Your task to perform on an android device: Search for Italian restaurants on Maps Image 0: 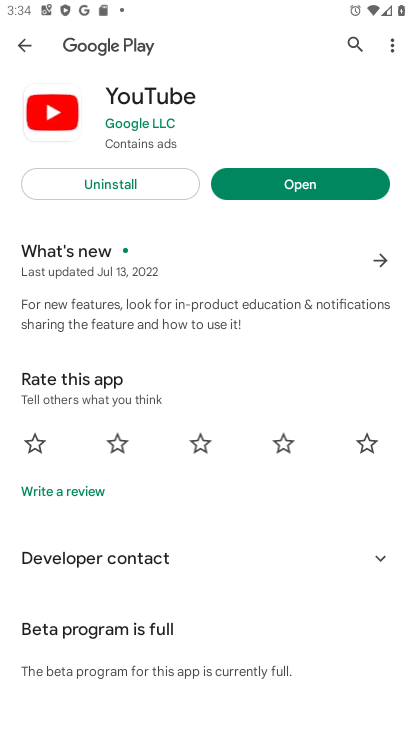
Step 0: press home button
Your task to perform on an android device: Search for Italian restaurants on Maps Image 1: 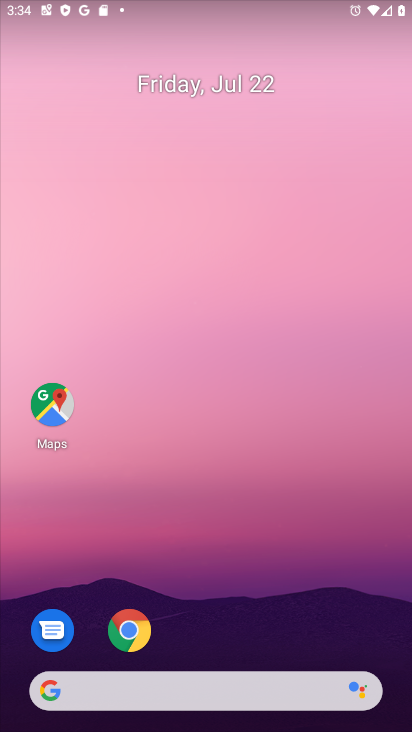
Step 1: click (59, 410)
Your task to perform on an android device: Search for Italian restaurants on Maps Image 2: 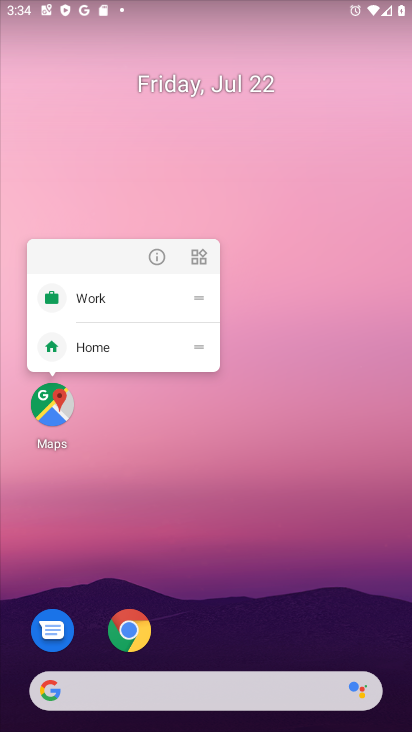
Step 2: click (59, 410)
Your task to perform on an android device: Search for Italian restaurants on Maps Image 3: 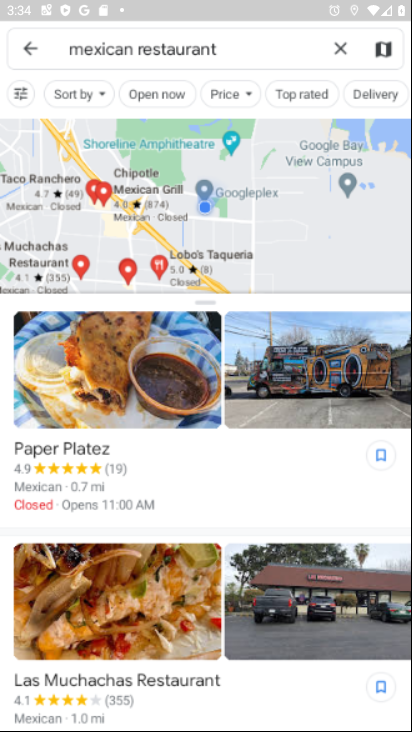
Step 3: click (344, 46)
Your task to perform on an android device: Search for Italian restaurants on Maps Image 4: 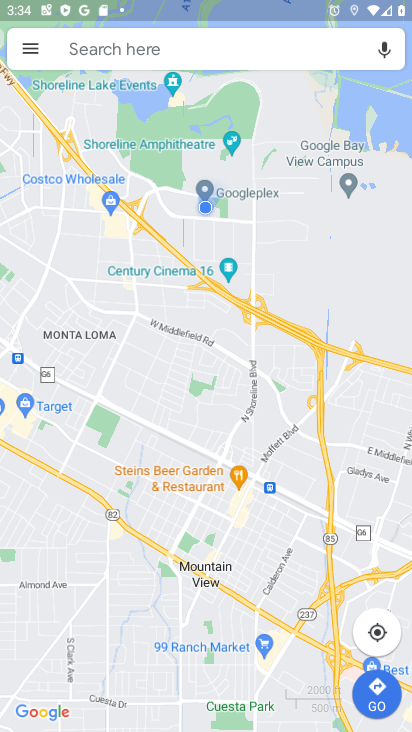
Step 4: click (209, 57)
Your task to perform on an android device: Search for Italian restaurants on Maps Image 5: 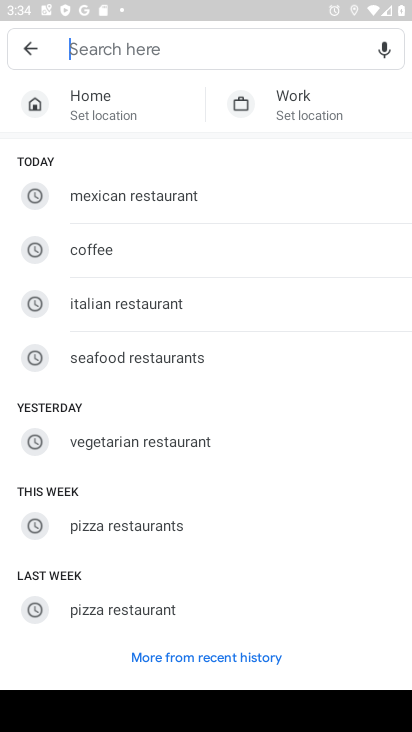
Step 5: click (176, 305)
Your task to perform on an android device: Search for Italian restaurants on Maps Image 6: 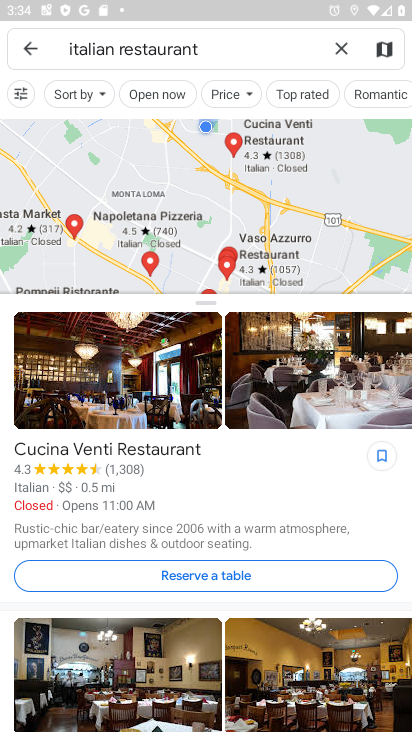
Step 6: task complete